Your task to perform on an android device: manage bookmarks in the chrome app Image 0: 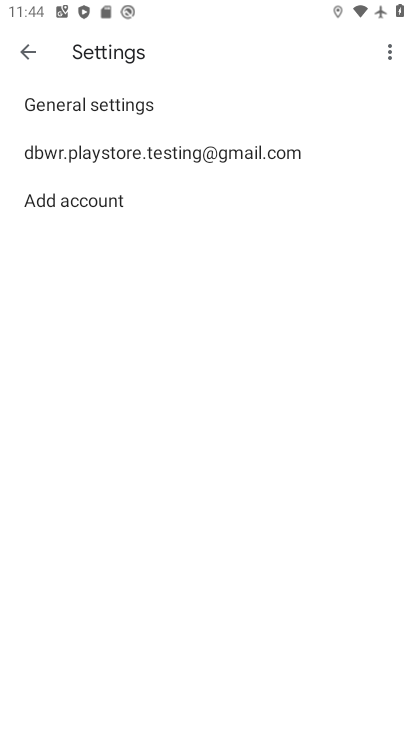
Step 0: press back button
Your task to perform on an android device: manage bookmarks in the chrome app Image 1: 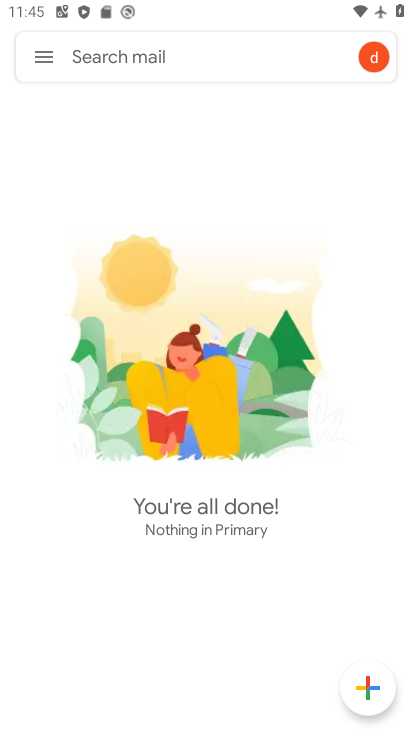
Step 1: press back button
Your task to perform on an android device: manage bookmarks in the chrome app Image 2: 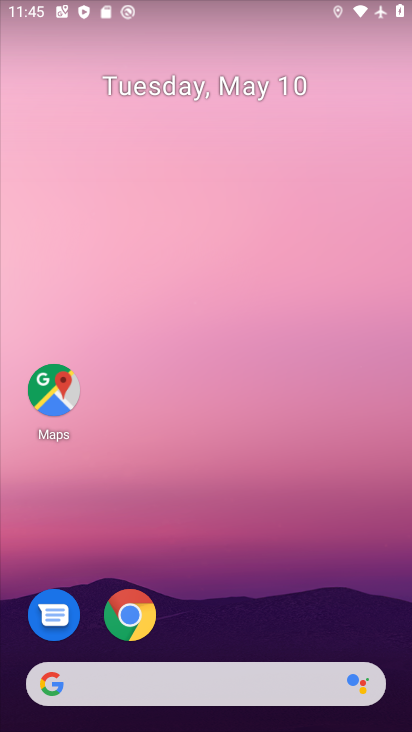
Step 2: drag from (198, 592) to (180, 39)
Your task to perform on an android device: manage bookmarks in the chrome app Image 3: 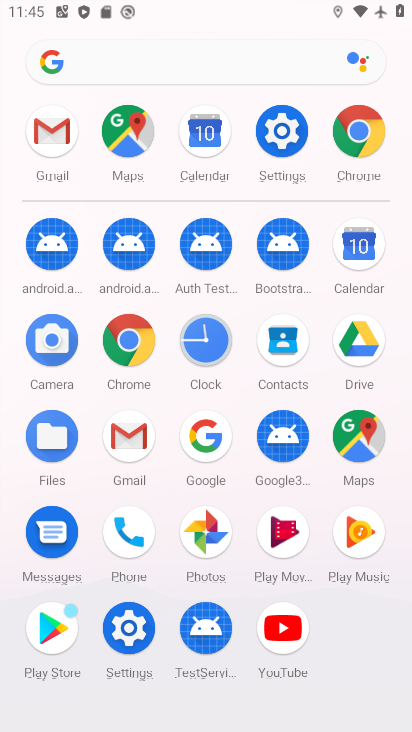
Step 3: click (124, 338)
Your task to perform on an android device: manage bookmarks in the chrome app Image 4: 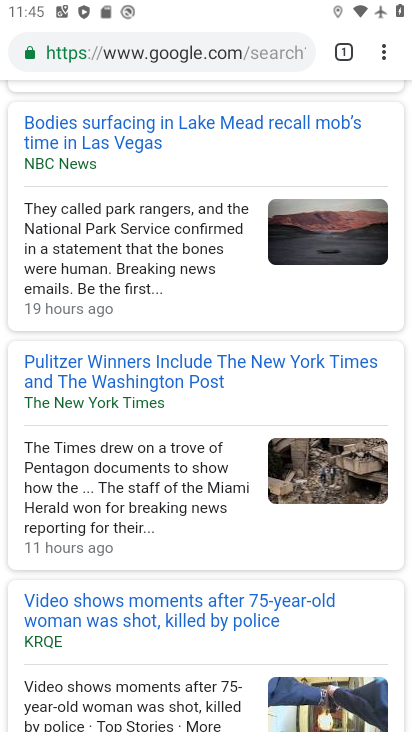
Step 4: task complete